Your task to perform on an android device: Search for sushi restaurants on Maps Image 0: 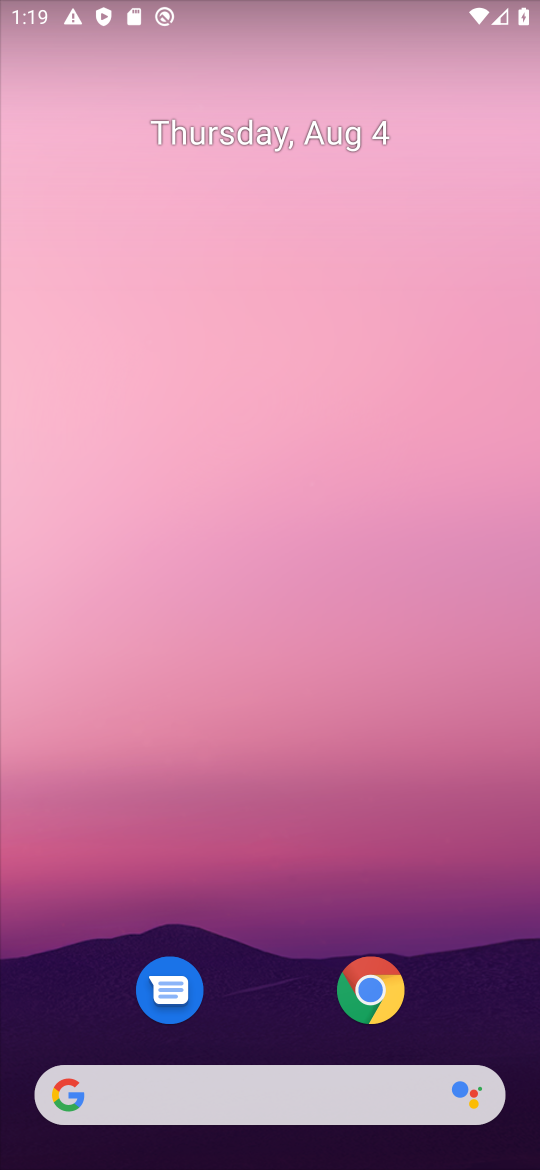
Step 0: drag from (268, 1037) to (290, 49)
Your task to perform on an android device: Search for sushi restaurants on Maps Image 1: 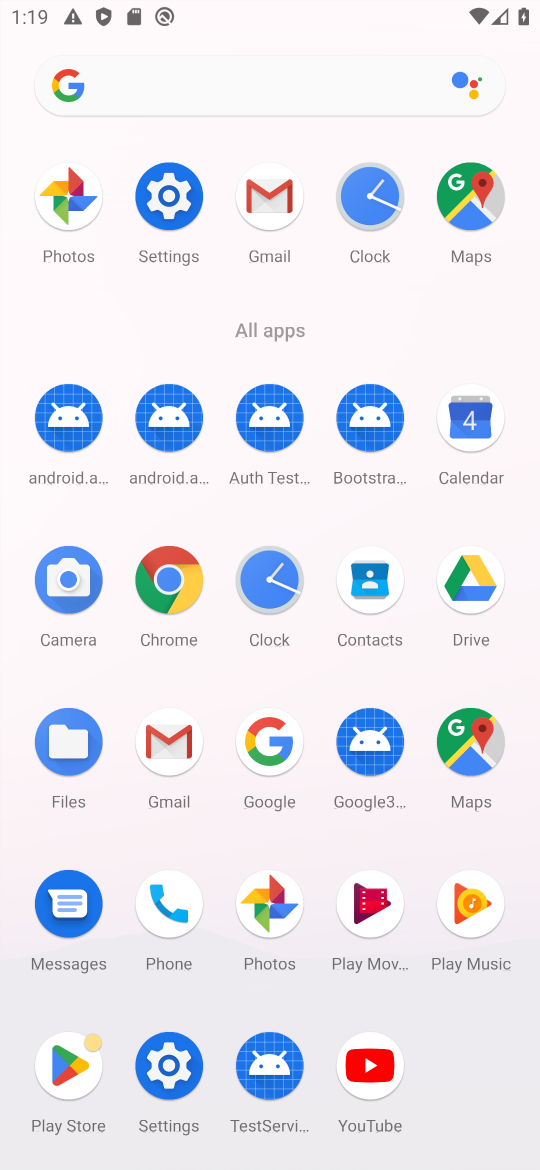
Step 1: click (485, 227)
Your task to perform on an android device: Search for sushi restaurants on Maps Image 2: 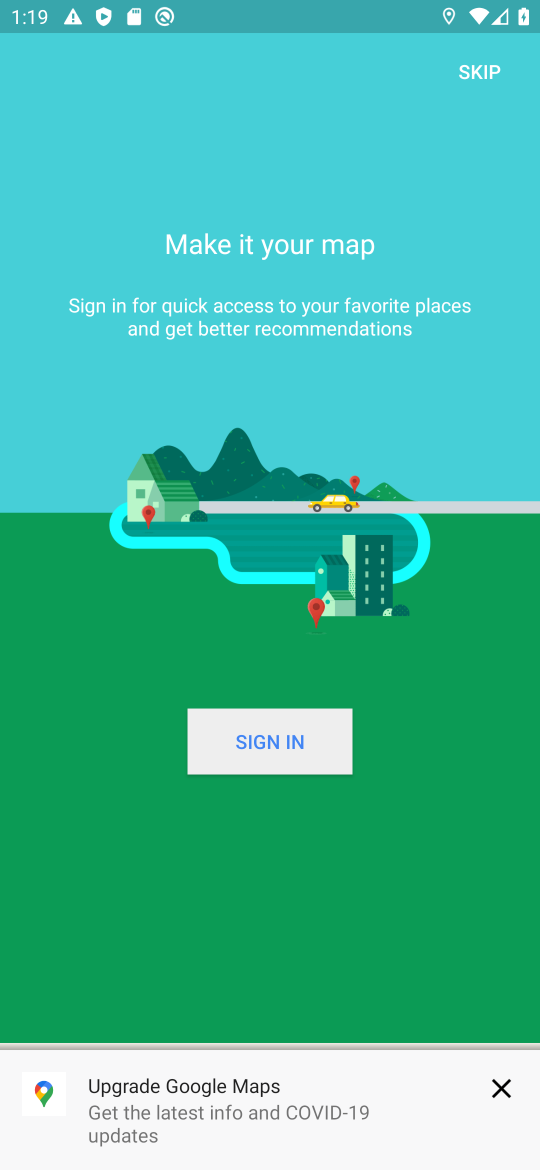
Step 2: press home button
Your task to perform on an android device: Search for sushi restaurants on Maps Image 3: 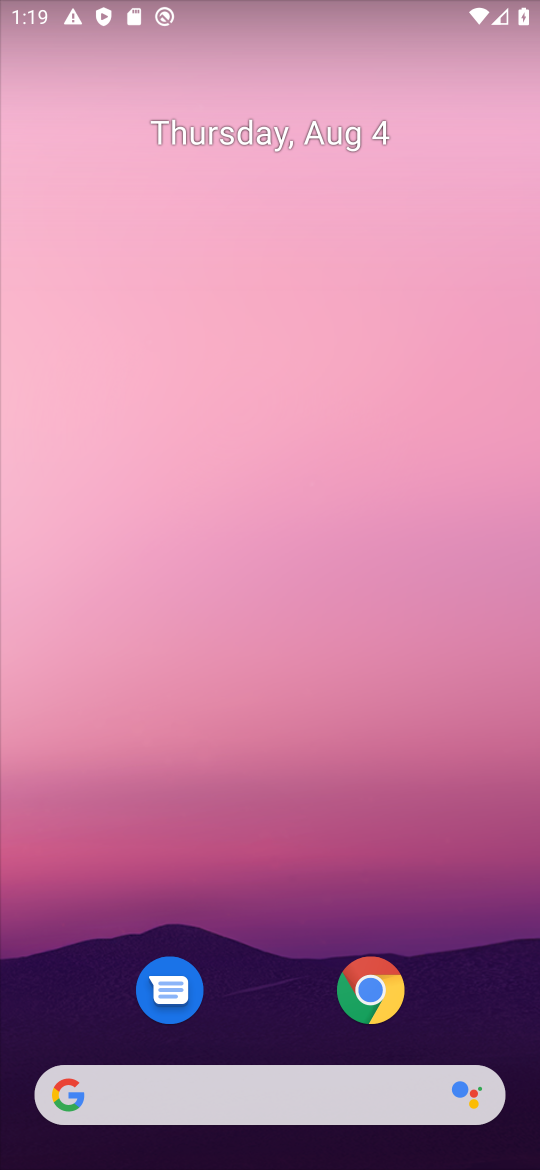
Step 3: drag from (296, 1034) to (413, 130)
Your task to perform on an android device: Search for sushi restaurants on Maps Image 4: 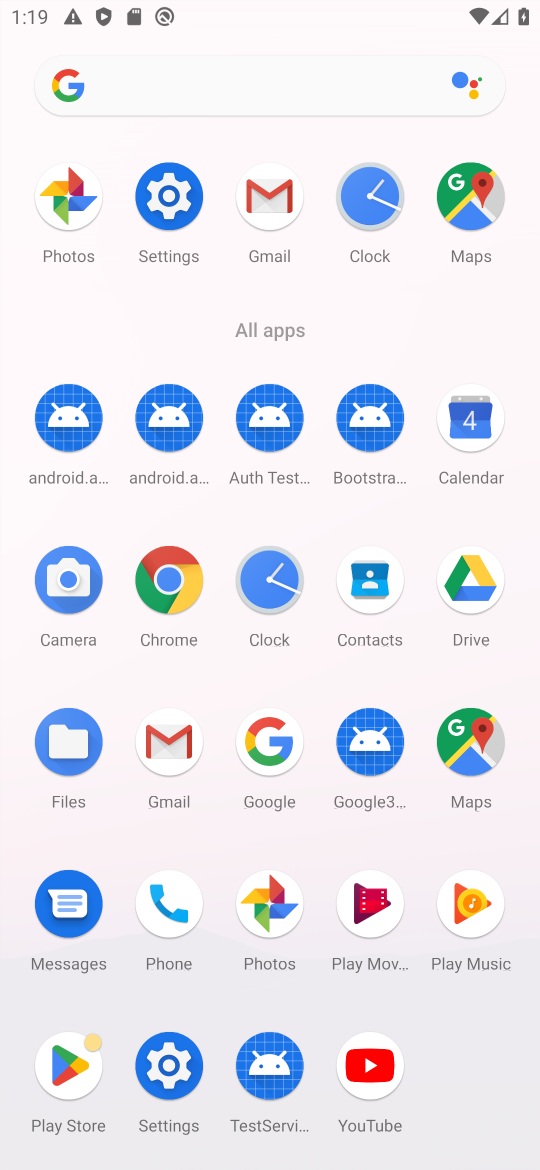
Step 4: click (494, 756)
Your task to perform on an android device: Search for sushi restaurants on Maps Image 5: 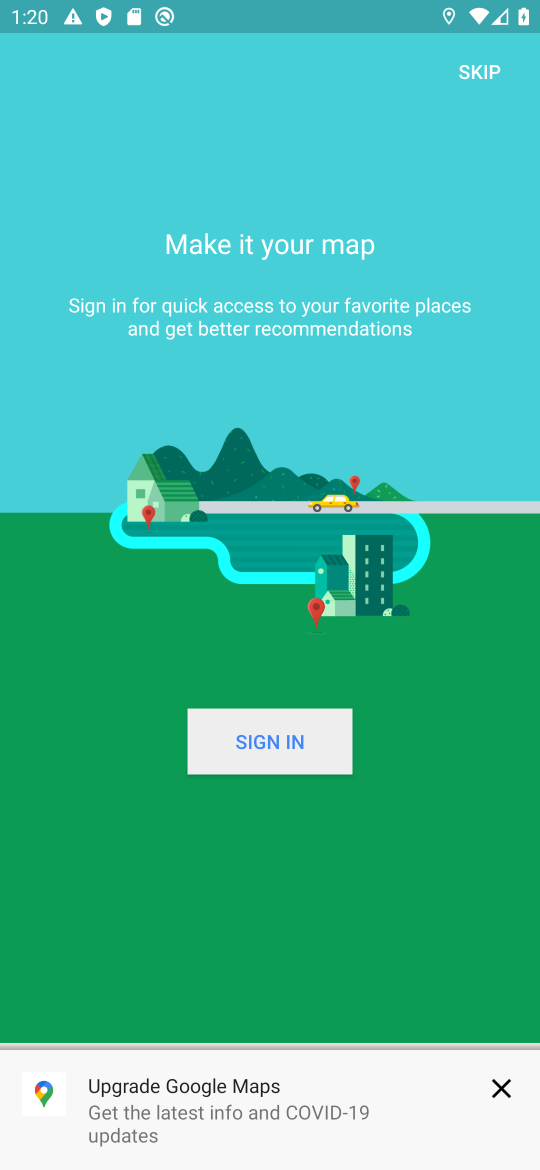
Step 5: click (511, 1097)
Your task to perform on an android device: Search for sushi restaurants on Maps Image 6: 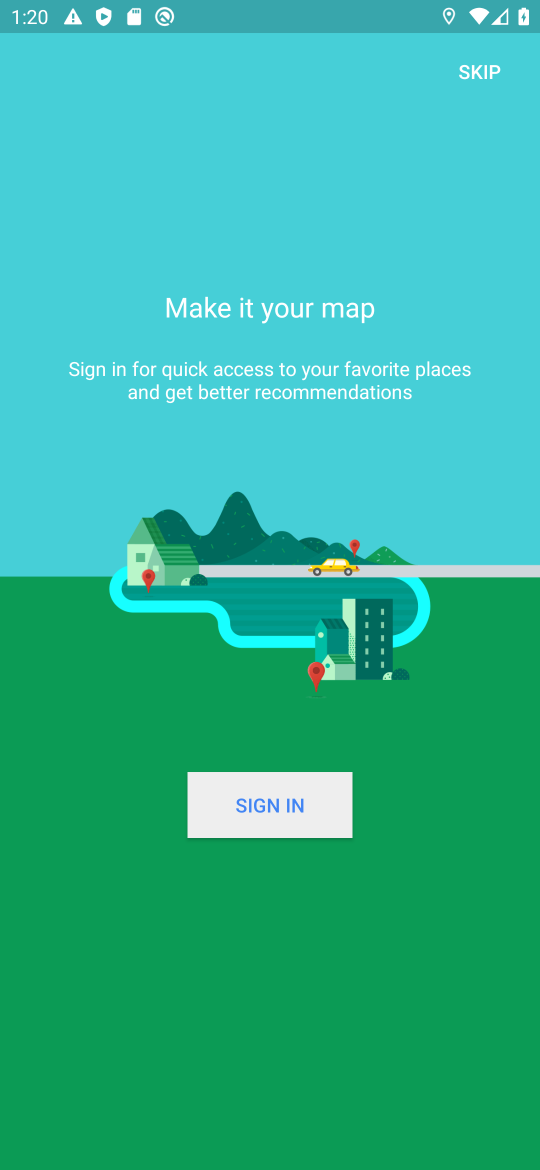
Step 6: task complete